Your task to perform on an android device: turn pop-ups on in chrome Image 0: 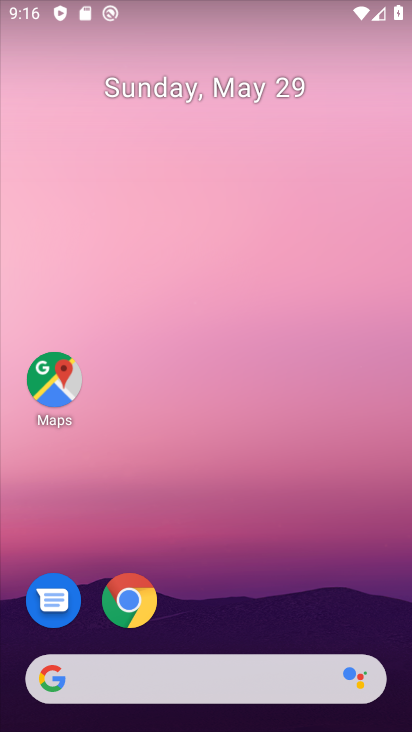
Step 0: click (123, 596)
Your task to perform on an android device: turn pop-ups on in chrome Image 1: 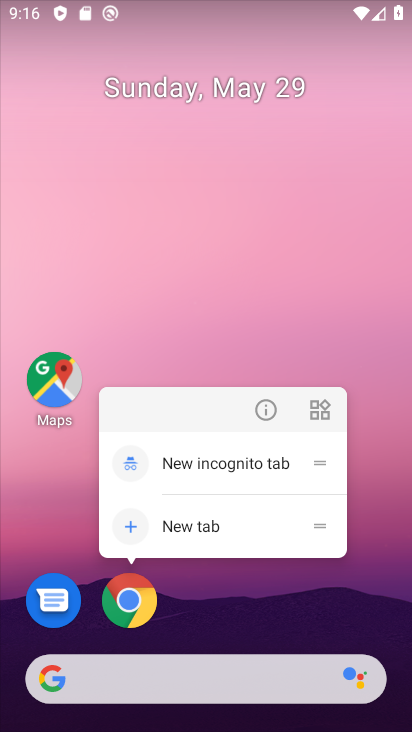
Step 1: click (202, 619)
Your task to perform on an android device: turn pop-ups on in chrome Image 2: 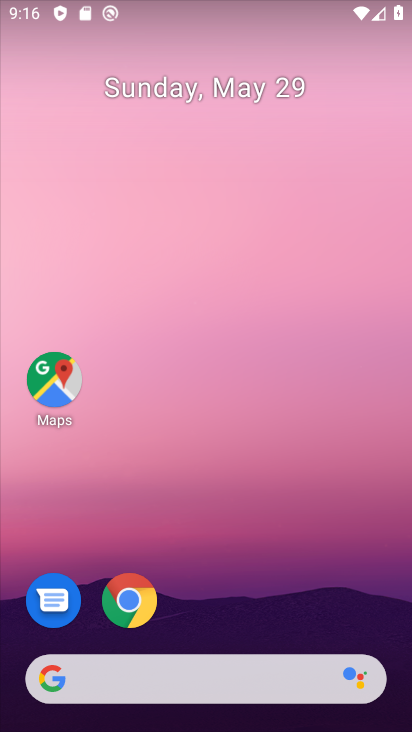
Step 2: drag from (202, 615) to (271, 35)
Your task to perform on an android device: turn pop-ups on in chrome Image 3: 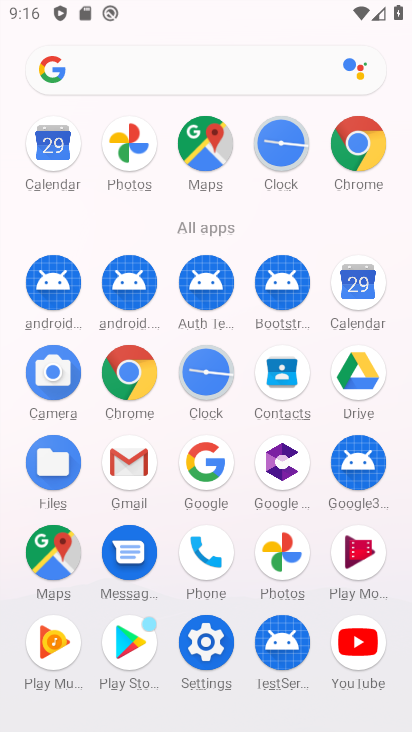
Step 3: click (128, 371)
Your task to perform on an android device: turn pop-ups on in chrome Image 4: 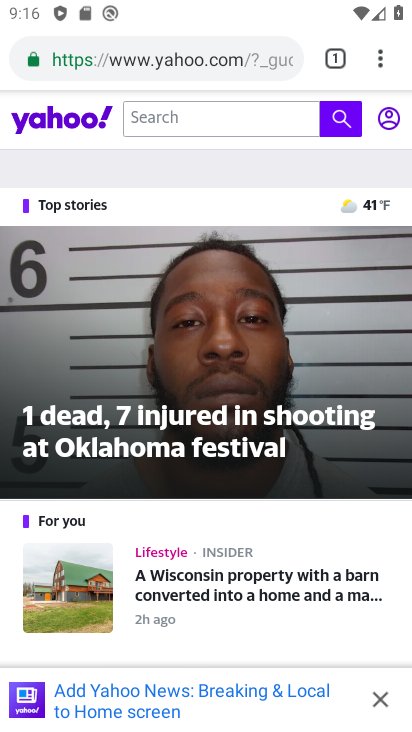
Step 4: drag from (383, 60) to (150, 623)
Your task to perform on an android device: turn pop-ups on in chrome Image 5: 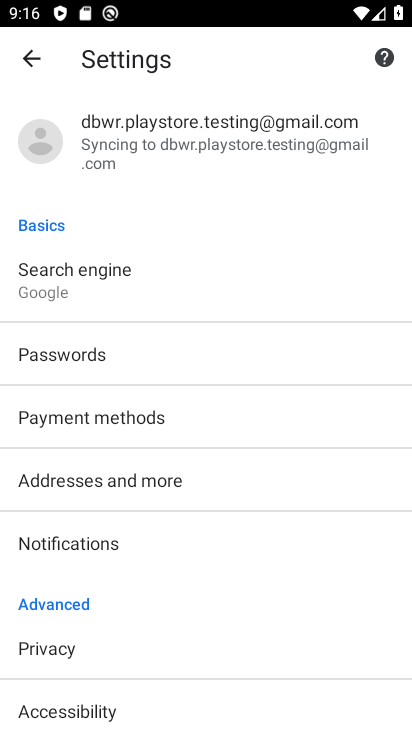
Step 5: drag from (234, 658) to (307, 302)
Your task to perform on an android device: turn pop-ups on in chrome Image 6: 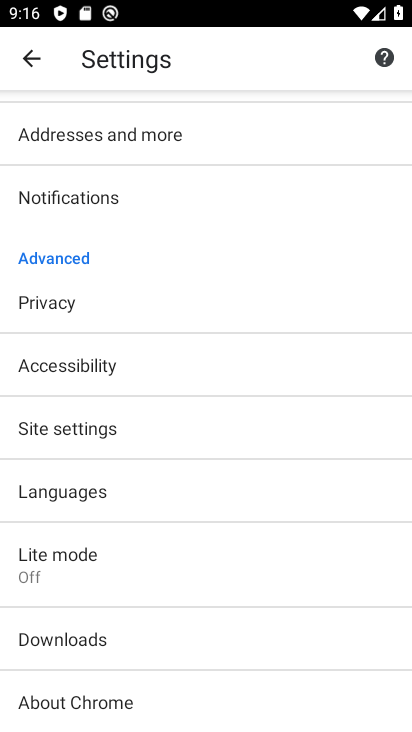
Step 6: click (99, 421)
Your task to perform on an android device: turn pop-ups on in chrome Image 7: 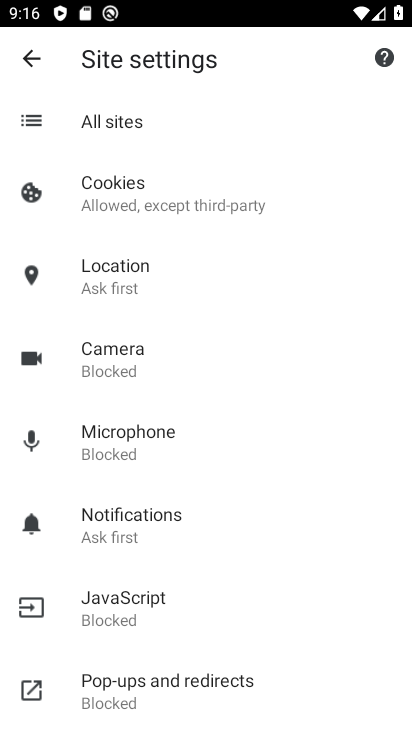
Step 7: click (120, 683)
Your task to perform on an android device: turn pop-ups on in chrome Image 8: 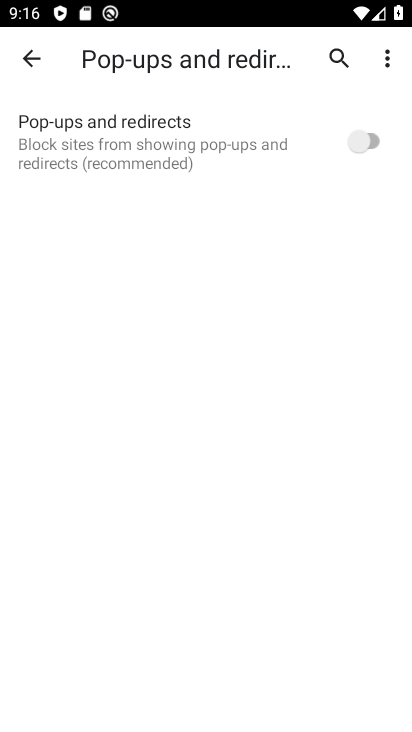
Step 8: click (352, 145)
Your task to perform on an android device: turn pop-ups on in chrome Image 9: 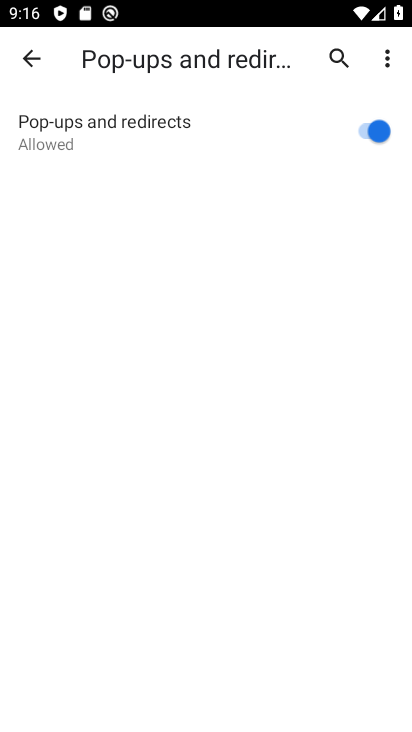
Step 9: task complete